Your task to perform on an android device: check out phone information Image 0: 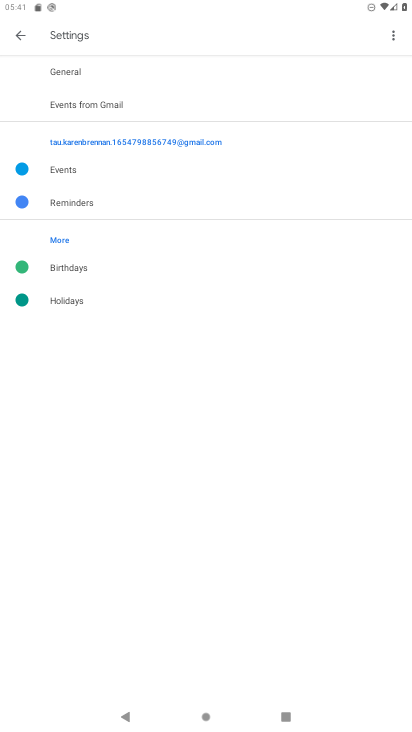
Step 0: press home button
Your task to perform on an android device: check out phone information Image 1: 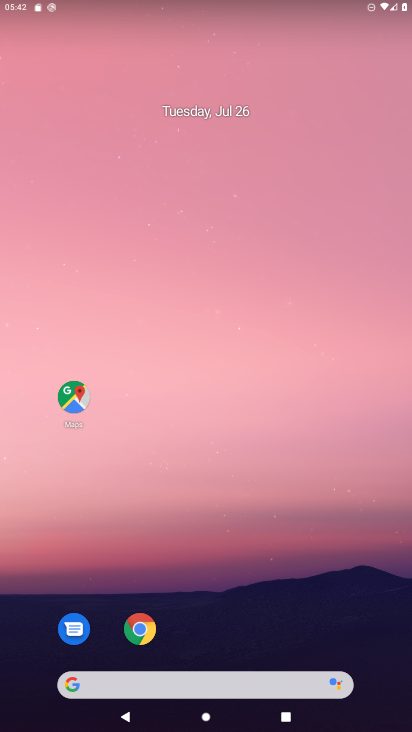
Step 1: drag from (189, 583) to (162, 45)
Your task to perform on an android device: check out phone information Image 2: 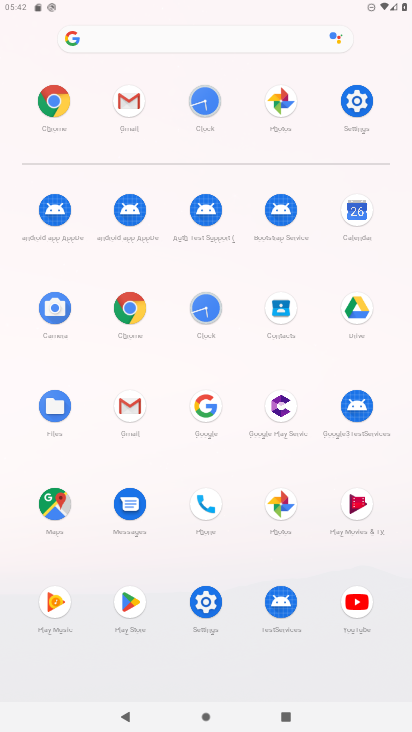
Step 2: click (208, 609)
Your task to perform on an android device: check out phone information Image 3: 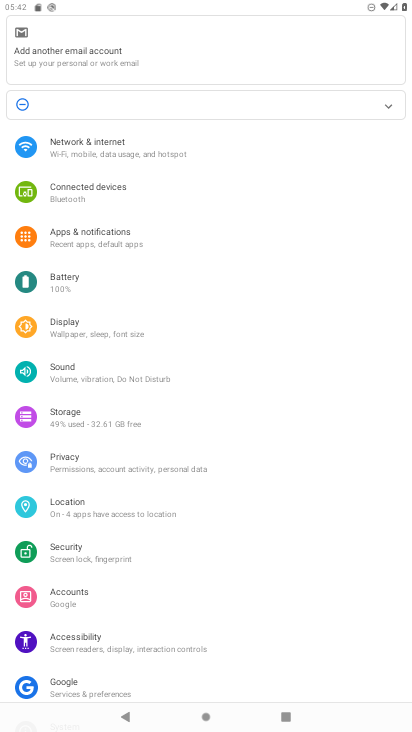
Step 3: drag from (144, 640) to (160, 178)
Your task to perform on an android device: check out phone information Image 4: 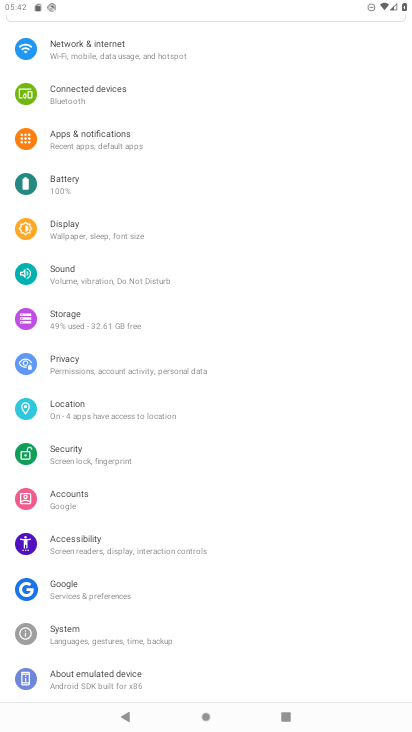
Step 4: click (74, 684)
Your task to perform on an android device: check out phone information Image 5: 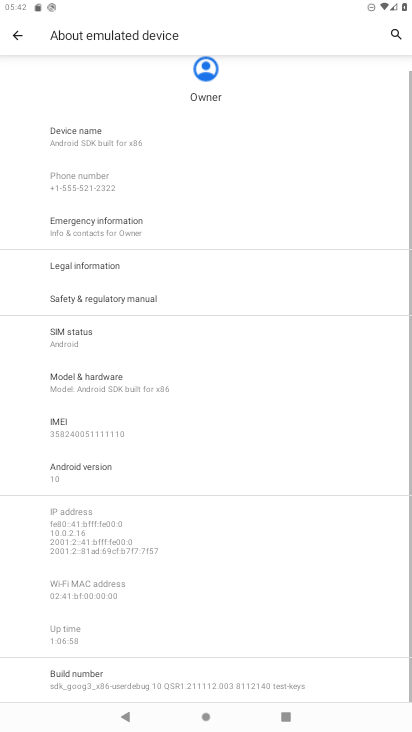
Step 5: task complete